Your task to perform on an android device: add a contact Image 0: 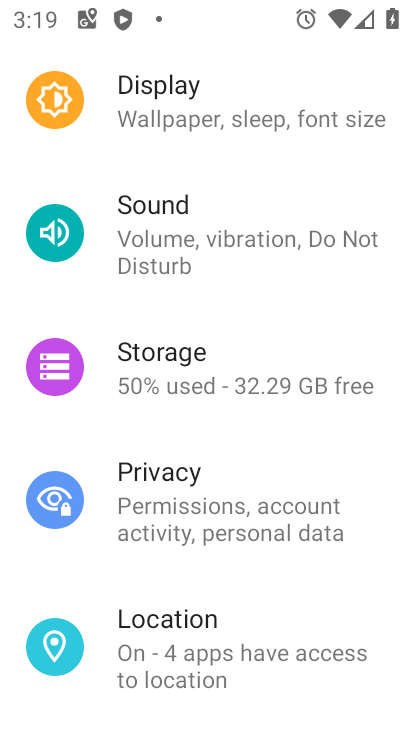
Step 0: press home button
Your task to perform on an android device: add a contact Image 1: 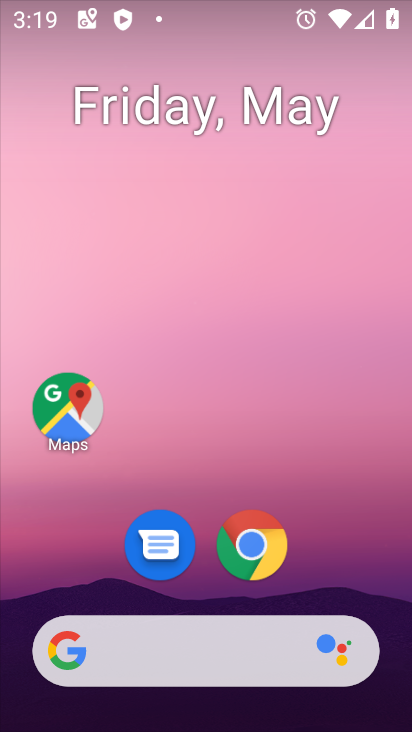
Step 1: drag from (310, 553) to (310, 229)
Your task to perform on an android device: add a contact Image 2: 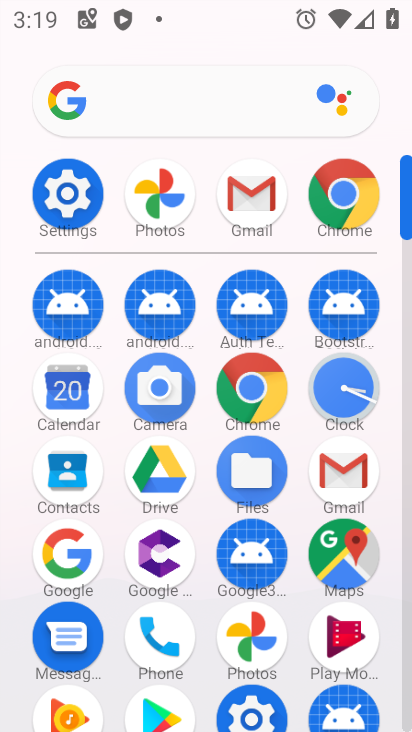
Step 2: click (72, 476)
Your task to perform on an android device: add a contact Image 3: 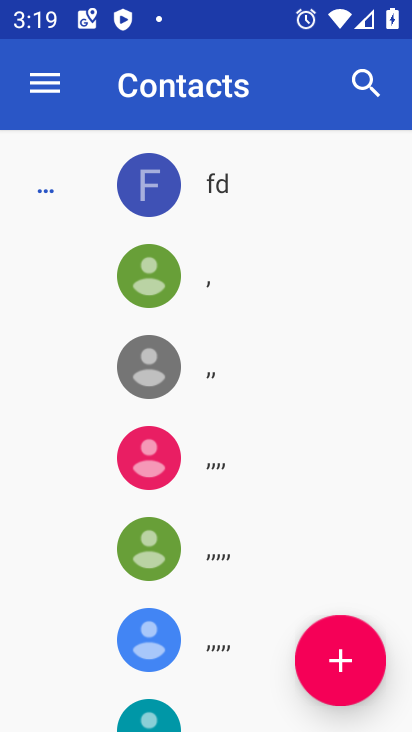
Step 3: click (334, 654)
Your task to perform on an android device: add a contact Image 4: 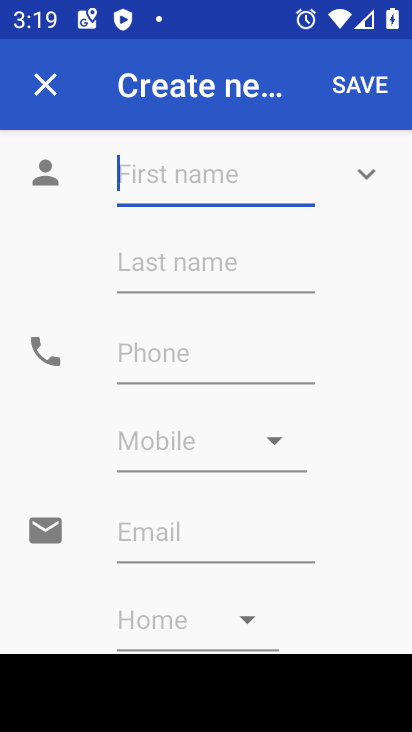
Step 4: type "ggbf"
Your task to perform on an android device: add a contact Image 5: 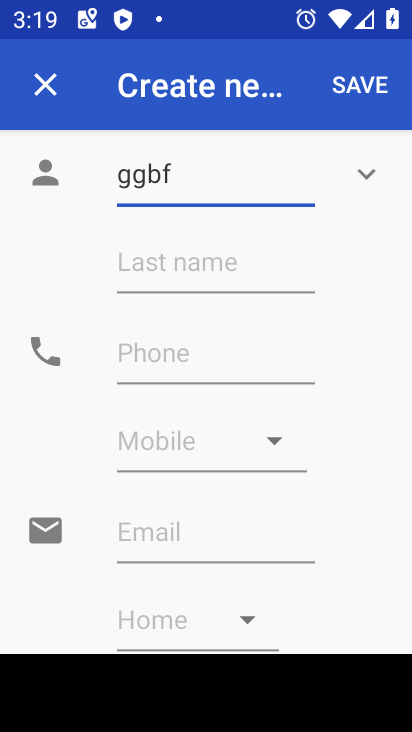
Step 5: click (215, 360)
Your task to perform on an android device: add a contact Image 6: 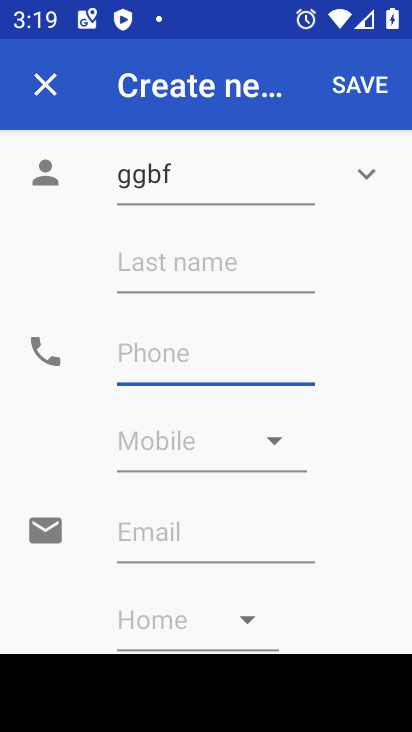
Step 6: type "567576677"
Your task to perform on an android device: add a contact Image 7: 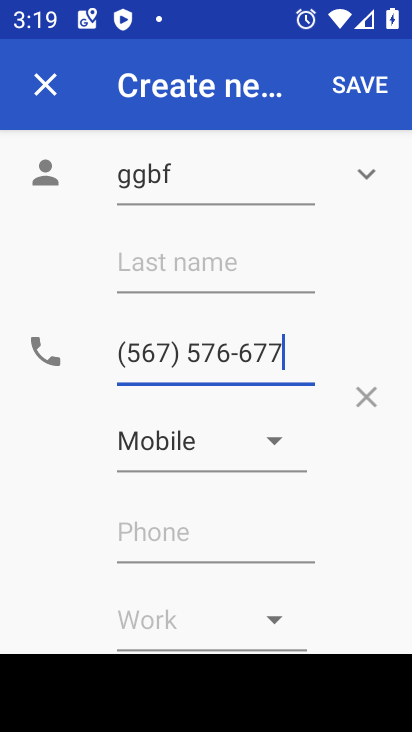
Step 7: click (365, 78)
Your task to perform on an android device: add a contact Image 8: 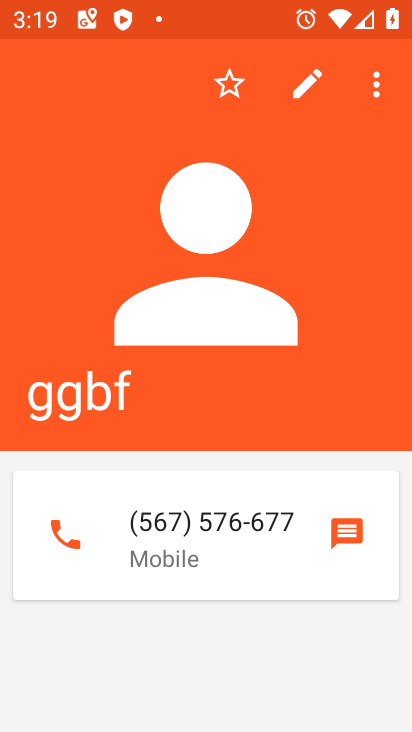
Step 8: task complete